Your task to perform on an android device: Do I have any events this weekend? Image 0: 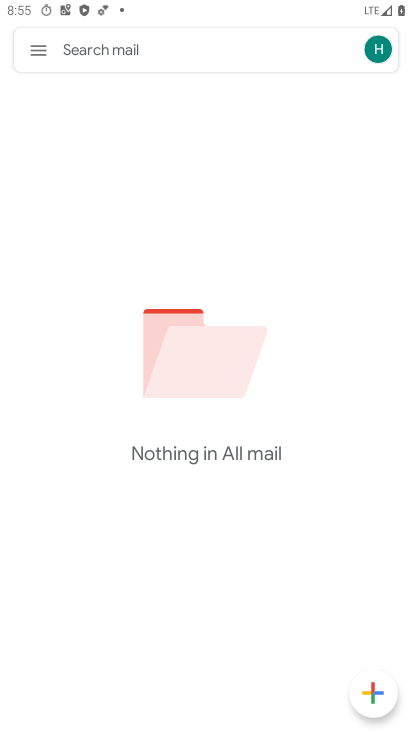
Step 0: press home button
Your task to perform on an android device: Do I have any events this weekend? Image 1: 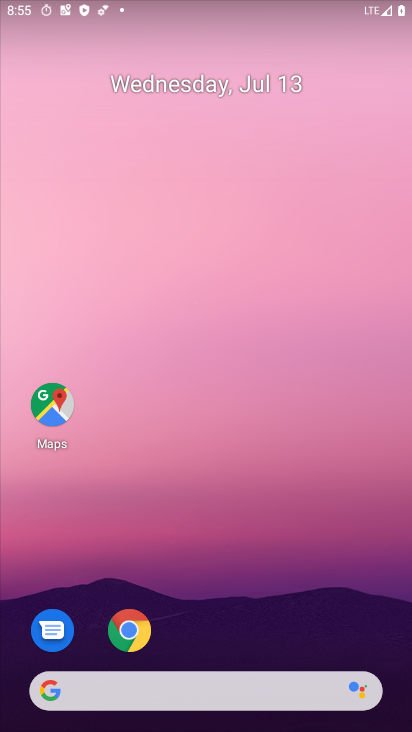
Step 1: drag from (348, 584) to (324, 81)
Your task to perform on an android device: Do I have any events this weekend? Image 2: 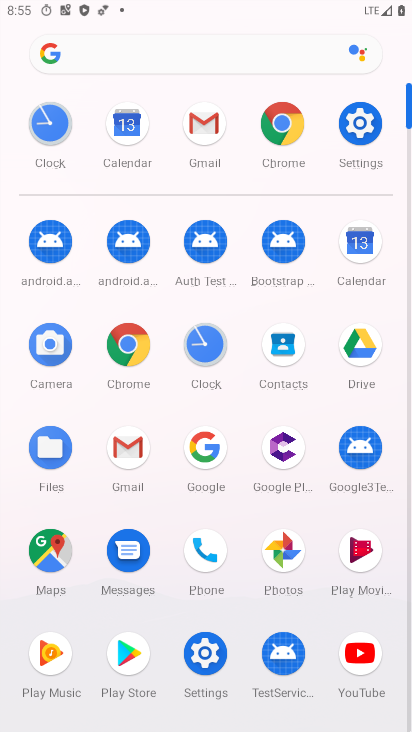
Step 2: click (353, 240)
Your task to perform on an android device: Do I have any events this weekend? Image 3: 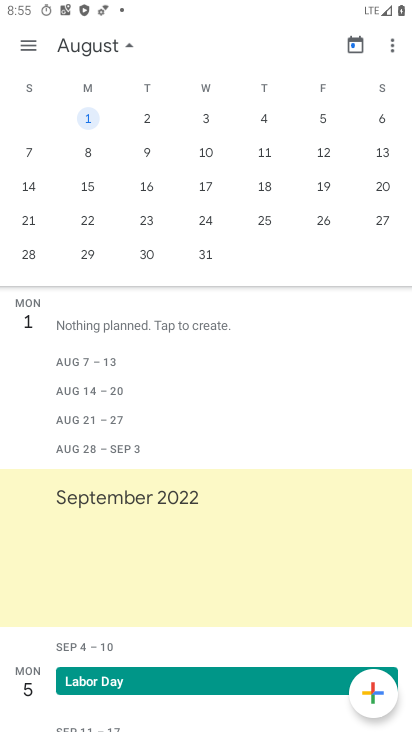
Step 3: drag from (269, 487) to (261, 293)
Your task to perform on an android device: Do I have any events this weekend? Image 4: 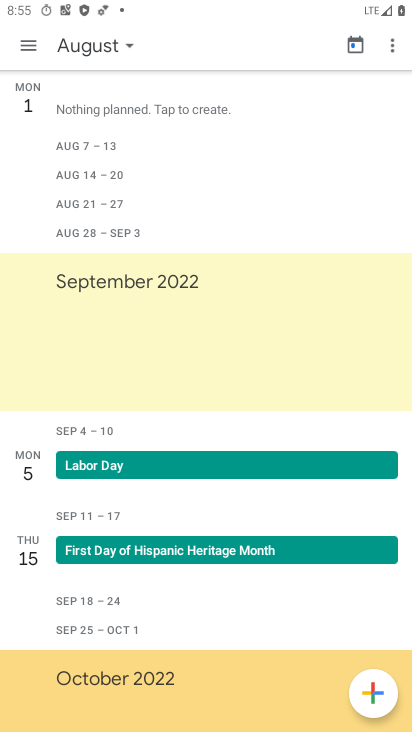
Step 4: drag from (256, 171) to (252, 305)
Your task to perform on an android device: Do I have any events this weekend? Image 5: 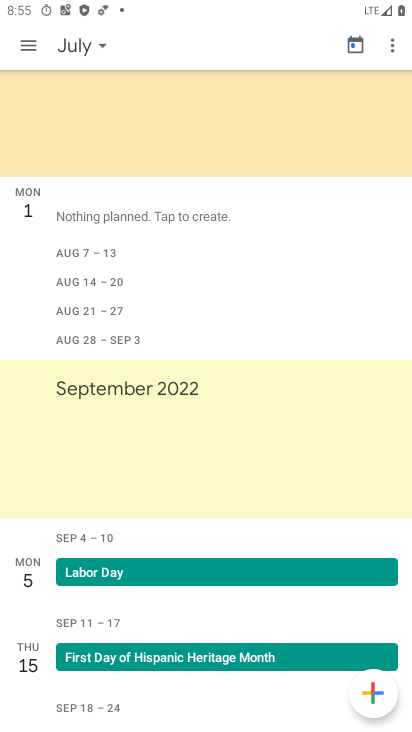
Step 5: drag from (248, 142) to (240, 312)
Your task to perform on an android device: Do I have any events this weekend? Image 6: 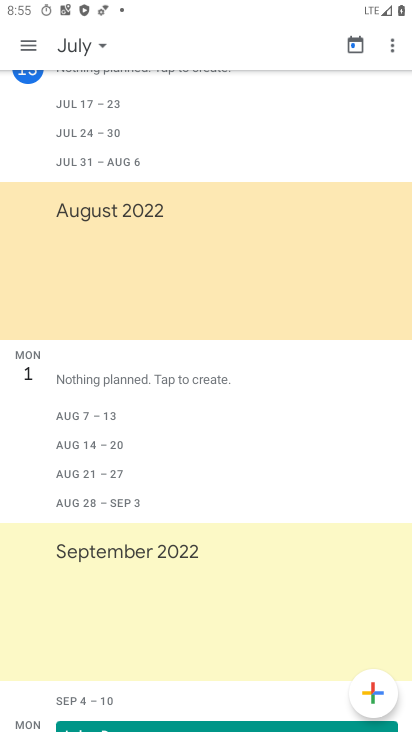
Step 6: drag from (222, 122) to (228, 306)
Your task to perform on an android device: Do I have any events this weekend? Image 7: 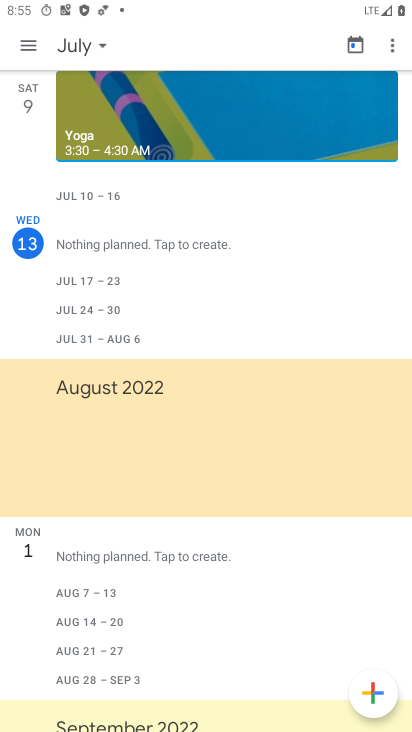
Step 7: drag from (238, 211) to (248, 338)
Your task to perform on an android device: Do I have any events this weekend? Image 8: 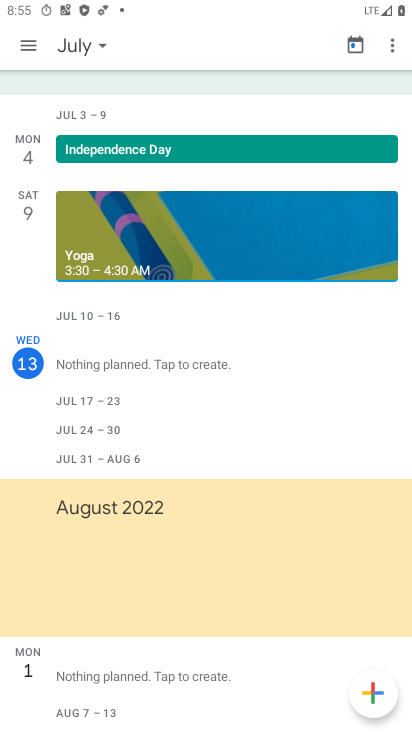
Step 8: drag from (247, 379) to (249, 236)
Your task to perform on an android device: Do I have any events this weekend? Image 9: 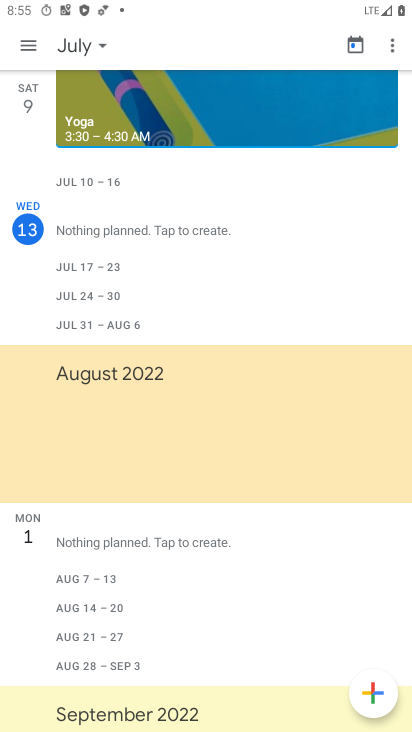
Step 9: drag from (249, 303) to (247, 199)
Your task to perform on an android device: Do I have any events this weekend? Image 10: 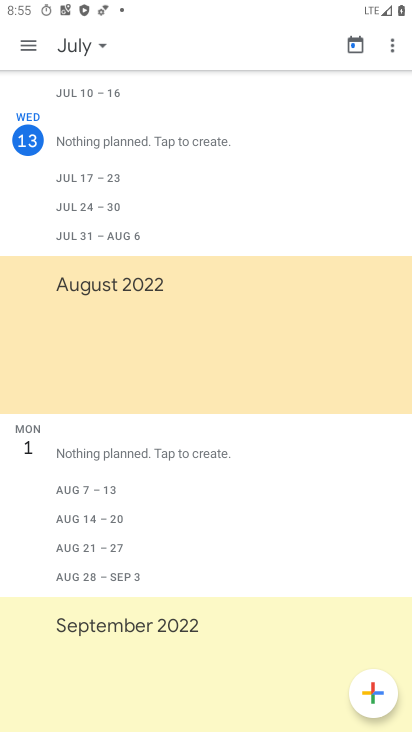
Step 10: click (105, 40)
Your task to perform on an android device: Do I have any events this weekend? Image 11: 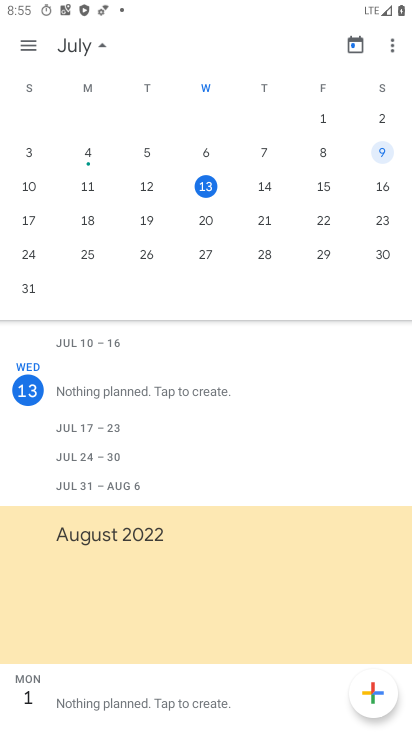
Step 11: task complete